Your task to perform on an android device: Go to battery settings Image 0: 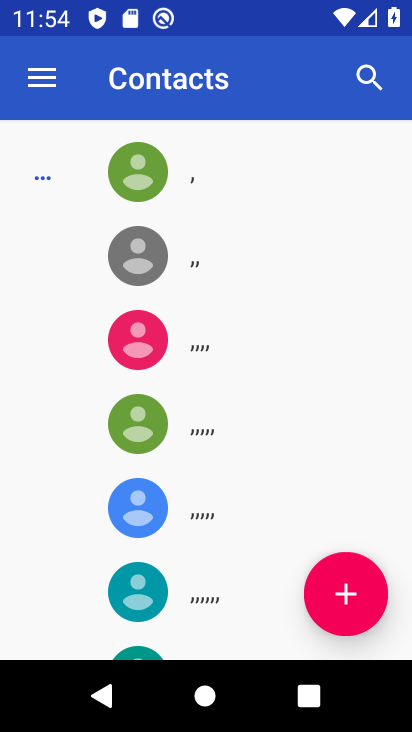
Step 0: press home button
Your task to perform on an android device: Go to battery settings Image 1: 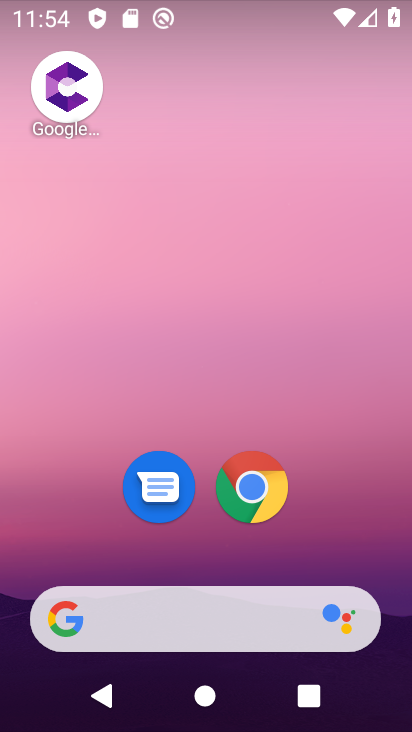
Step 1: drag from (205, 497) to (239, 73)
Your task to perform on an android device: Go to battery settings Image 2: 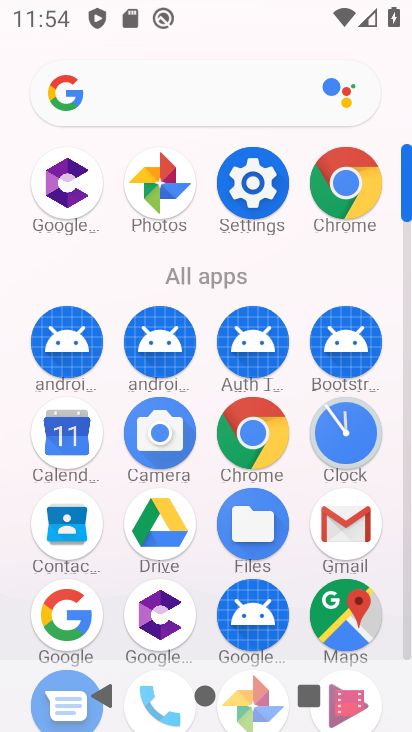
Step 2: click (241, 193)
Your task to perform on an android device: Go to battery settings Image 3: 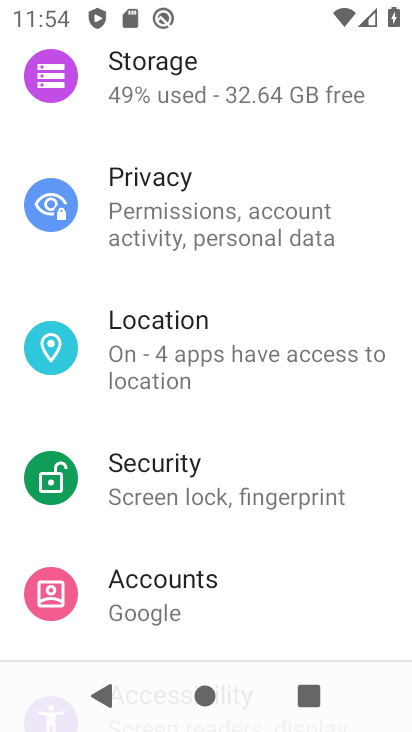
Step 3: drag from (215, 186) to (206, 609)
Your task to perform on an android device: Go to battery settings Image 4: 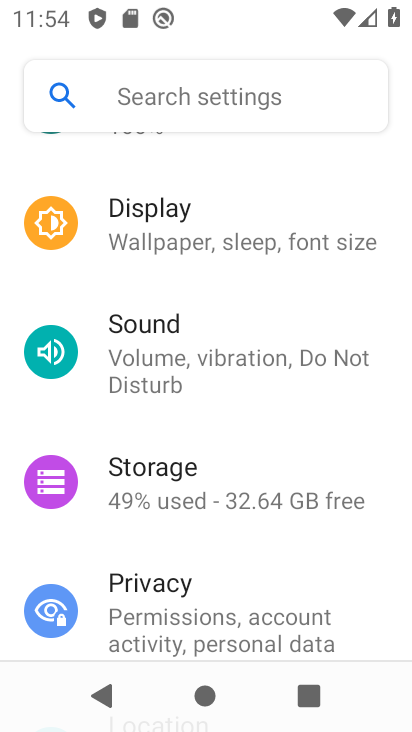
Step 4: drag from (196, 209) to (191, 473)
Your task to perform on an android device: Go to battery settings Image 5: 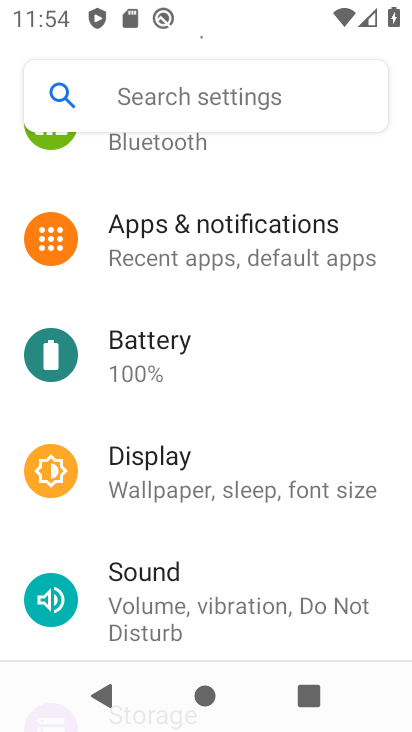
Step 5: click (186, 367)
Your task to perform on an android device: Go to battery settings Image 6: 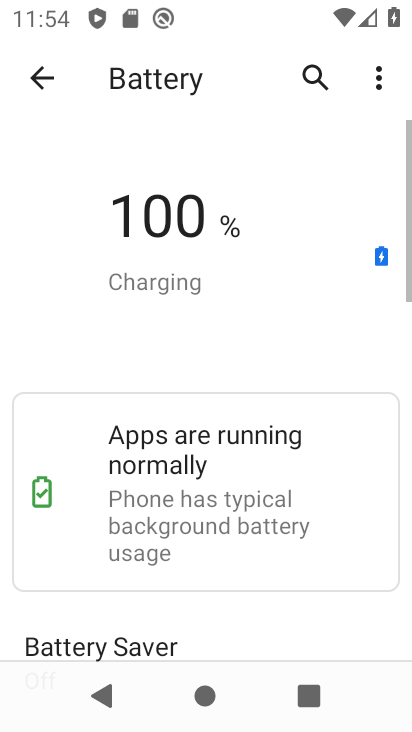
Step 6: task complete